Your task to perform on an android device: Go to Google maps Image 0: 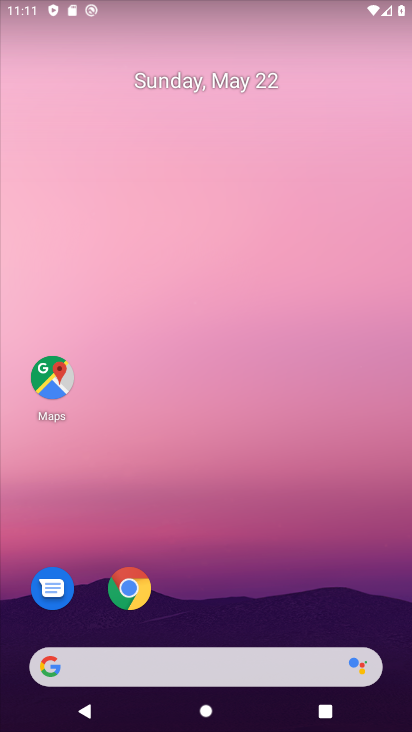
Step 0: click (65, 377)
Your task to perform on an android device: Go to Google maps Image 1: 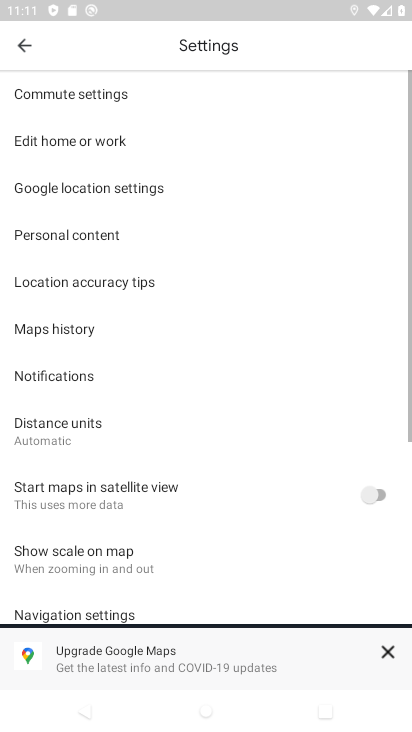
Step 1: click (388, 653)
Your task to perform on an android device: Go to Google maps Image 2: 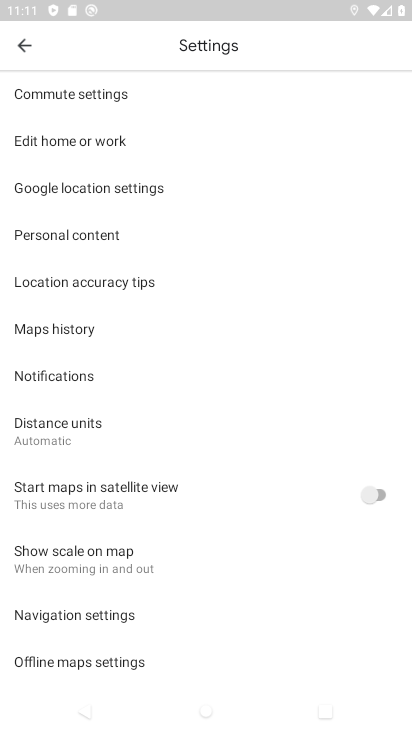
Step 2: click (17, 35)
Your task to perform on an android device: Go to Google maps Image 3: 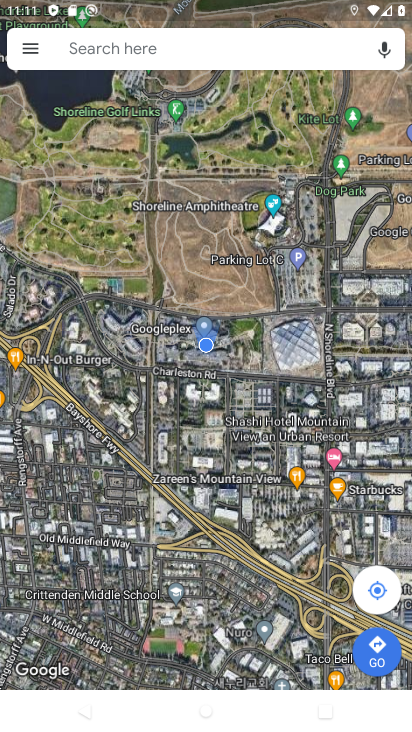
Step 3: task complete